Your task to perform on an android device: toggle javascript in the chrome app Image 0: 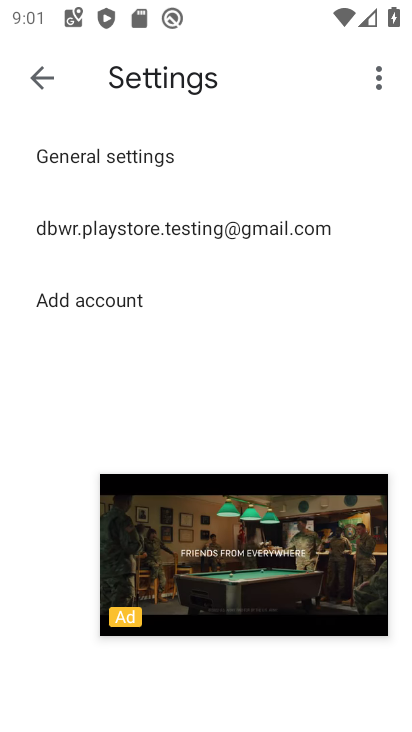
Step 0: press home button
Your task to perform on an android device: toggle javascript in the chrome app Image 1: 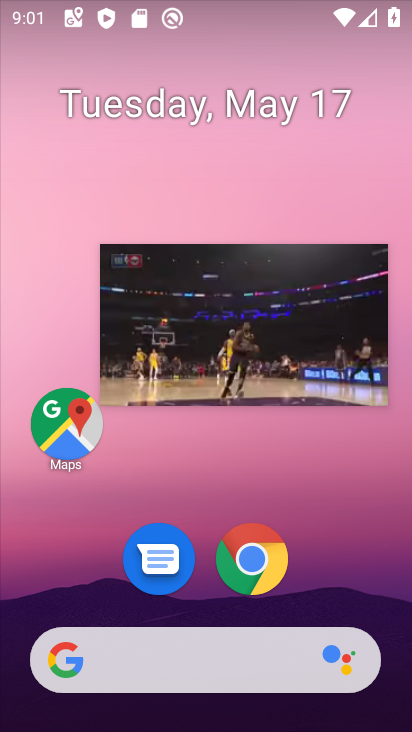
Step 1: drag from (211, 712) to (211, 0)
Your task to perform on an android device: toggle javascript in the chrome app Image 2: 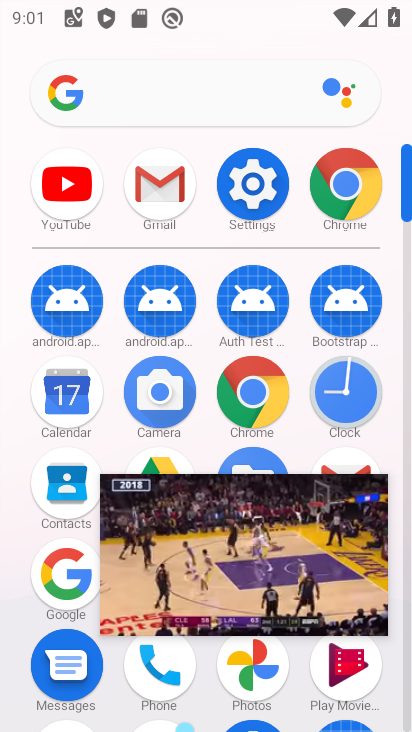
Step 2: click (358, 195)
Your task to perform on an android device: toggle javascript in the chrome app Image 3: 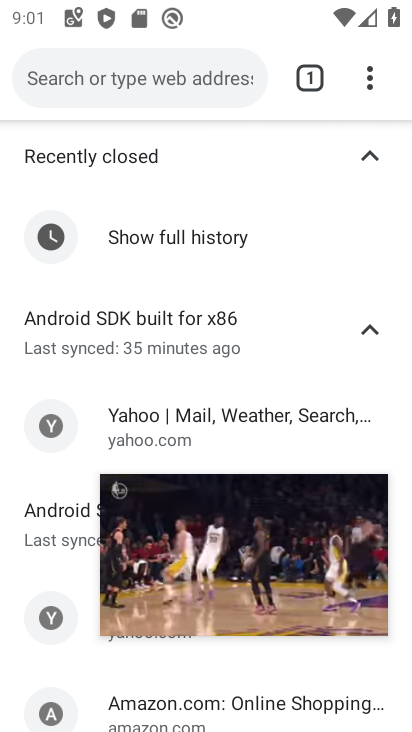
Step 3: click (369, 80)
Your task to perform on an android device: toggle javascript in the chrome app Image 4: 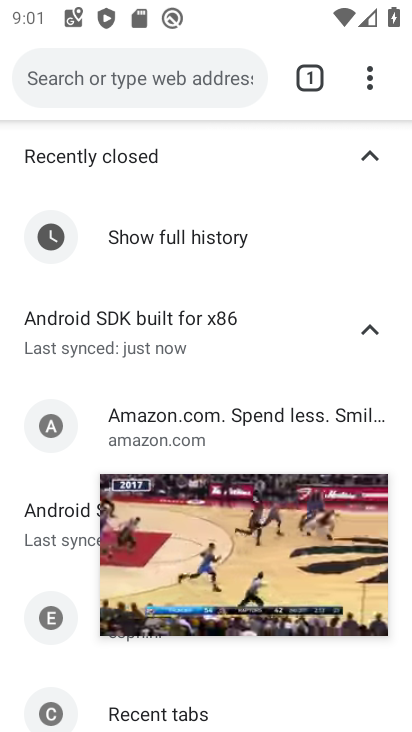
Step 4: click (360, 81)
Your task to perform on an android device: toggle javascript in the chrome app Image 5: 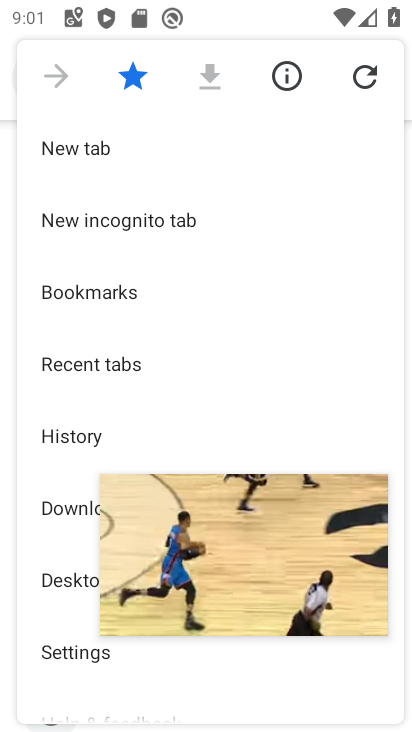
Step 5: click (80, 665)
Your task to perform on an android device: toggle javascript in the chrome app Image 6: 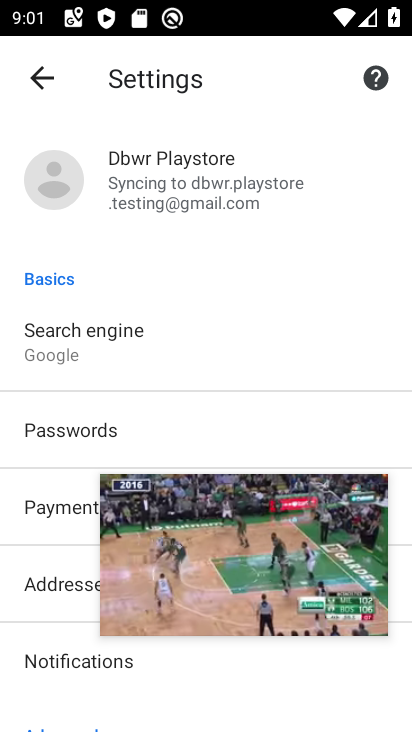
Step 6: drag from (67, 621) to (70, 152)
Your task to perform on an android device: toggle javascript in the chrome app Image 7: 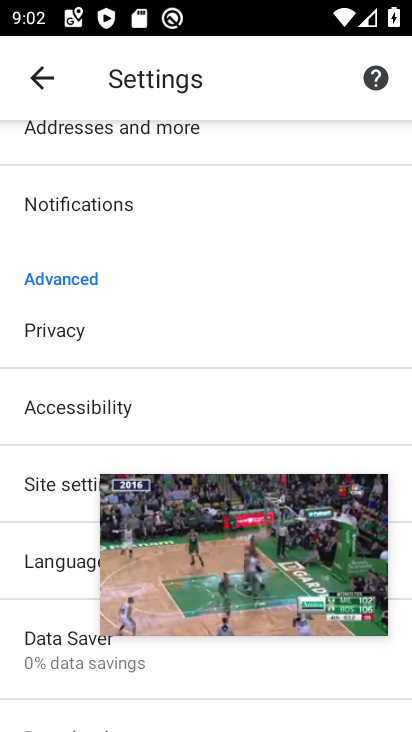
Step 7: click (50, 482)
Your task to perform on an android device: toggle javascript in the chrome app Image 8: 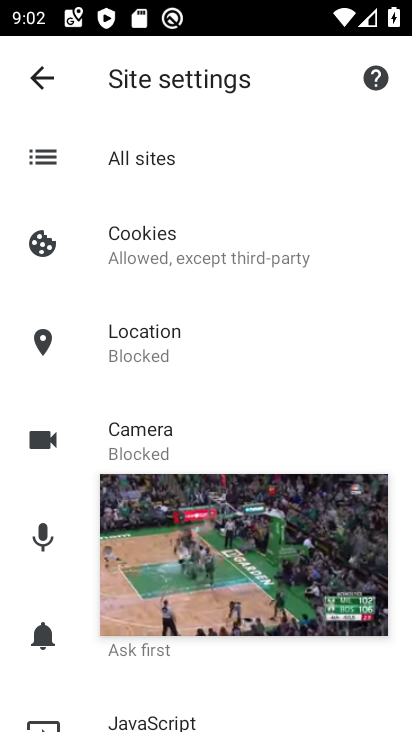
Step 8: click (206, 722)
Your task to perform on an android device: toggle javascript in the chrome app Image 9: 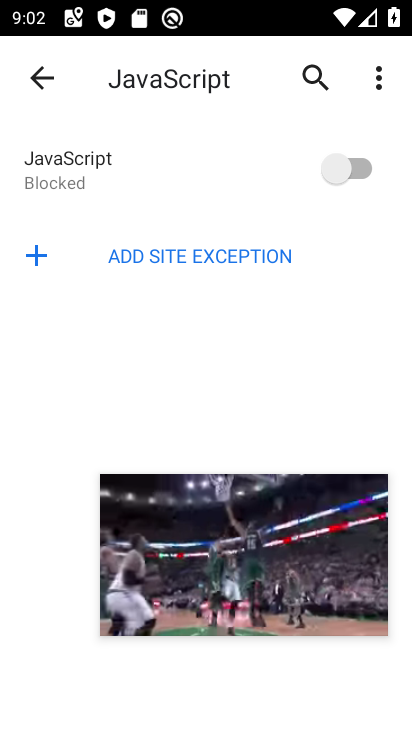
Step 9: click (346, 174)
Your task to perform on an android device: toggle javascript in the chrome app Image 10: 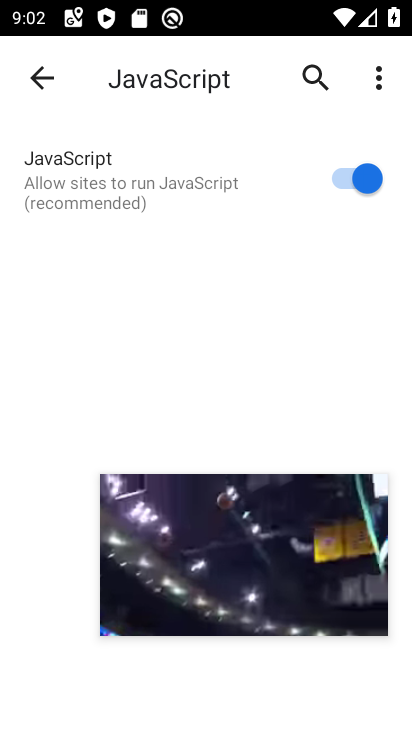
Step 10: task complete